Your task to perform on an android device: Open the phone app and click the voicemail tab. Image 0: 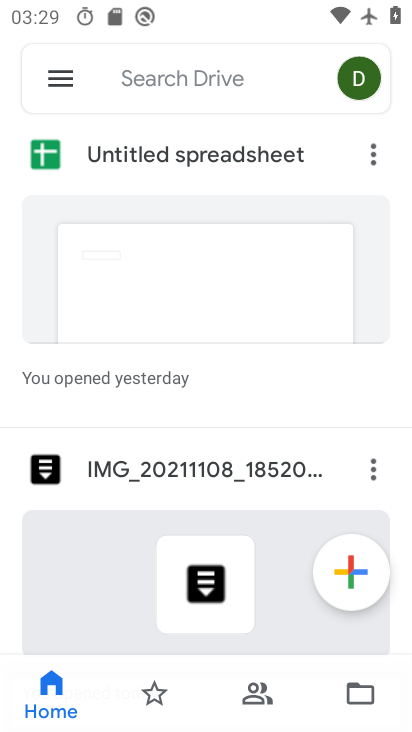
Step 0: press home button
Your task to perform on an android device: Open the phone app and click the voicemail tab. Image 1: 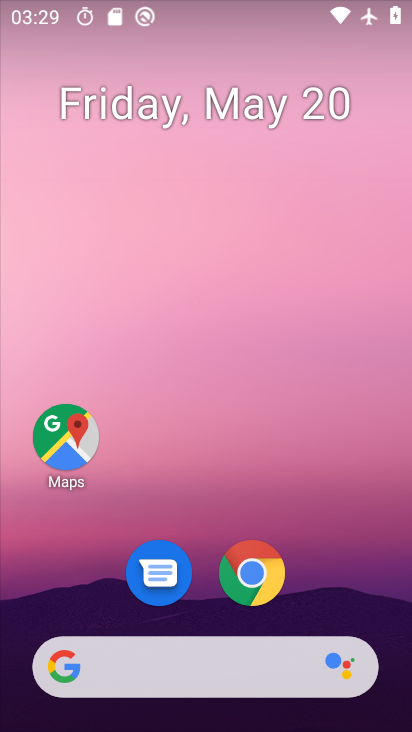
Step 1: drag from (189, 610) to (195, 240)
Your task to perform on an android device: Open the phone app and click the voicemail tab. Image 2: 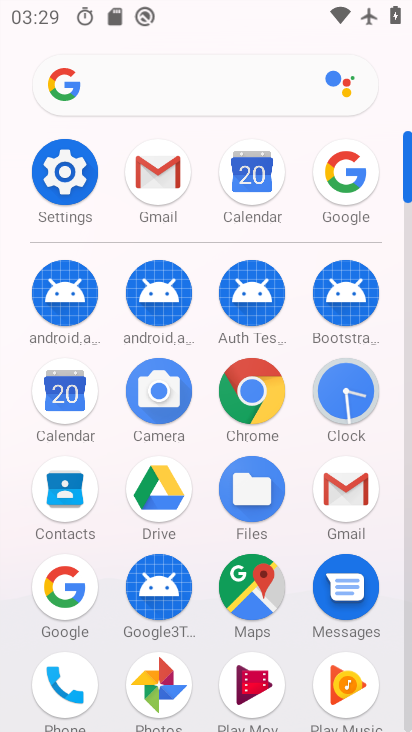
Step 2: click (77, 668)
Your task to perform on an android device: Open the phone app and click the voicemail tab. Image 3: 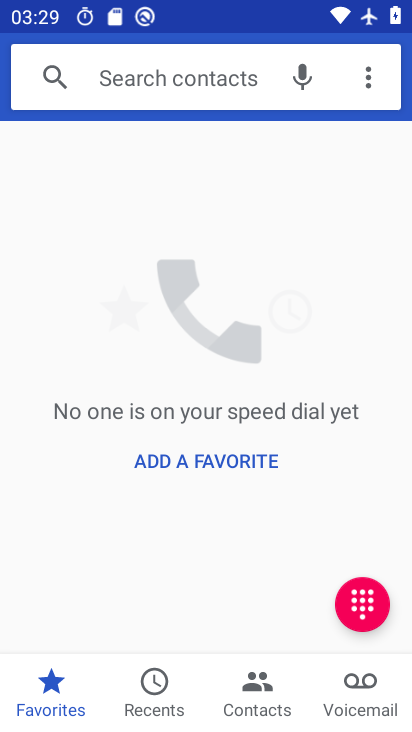
Step 3: click (343, 673)
Your task to perform on an android device: Open the phone app and click the voicemail tab. Image 4: 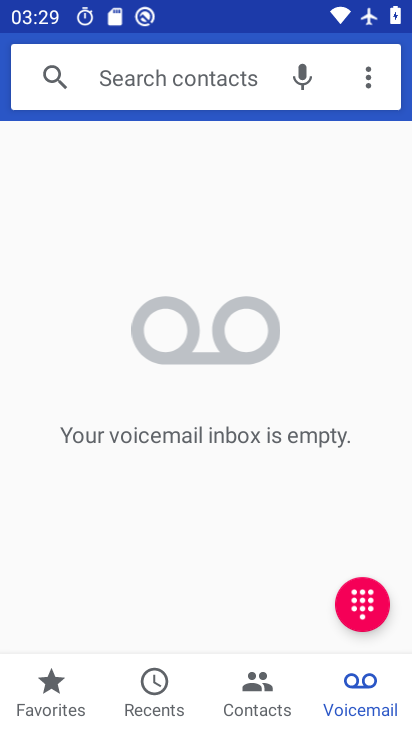
Step 4: task complete